Your task to perform on an android device: toggle sleep mode Image 0: 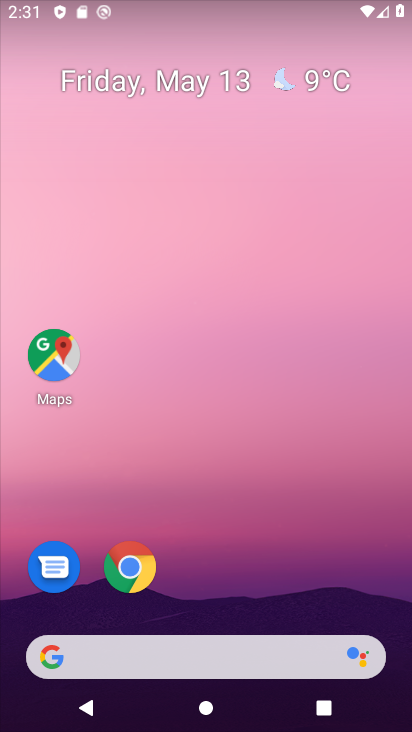
Step 0: drag from (260, 590) to (339, 8)
Your task to perform on an android device: toggle sleep mode Image 1: 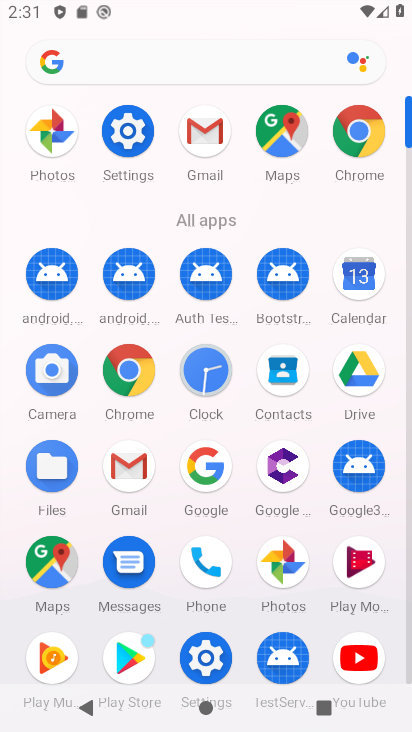
Step 1: click (127, 142)
Your task to perform on an android device: toggle sleep mode Image 2: 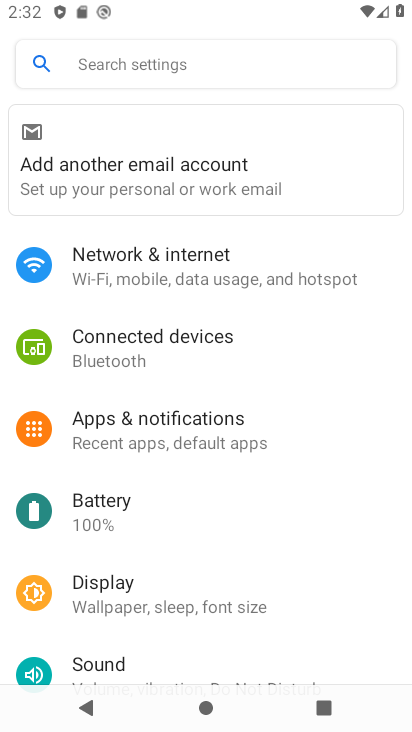
Step 2: click (112, 588)
Your task to perform on an android device: toggle sleep mode Image 3: 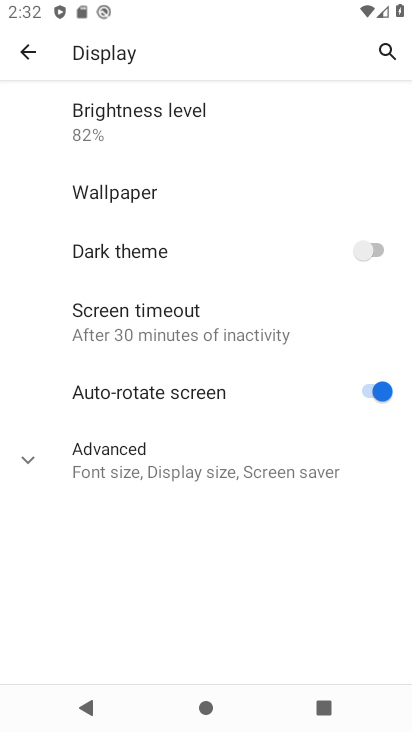
Step 3: click (23, 465)
Your task to perform on an android device: toggle sleep mode Image 4: 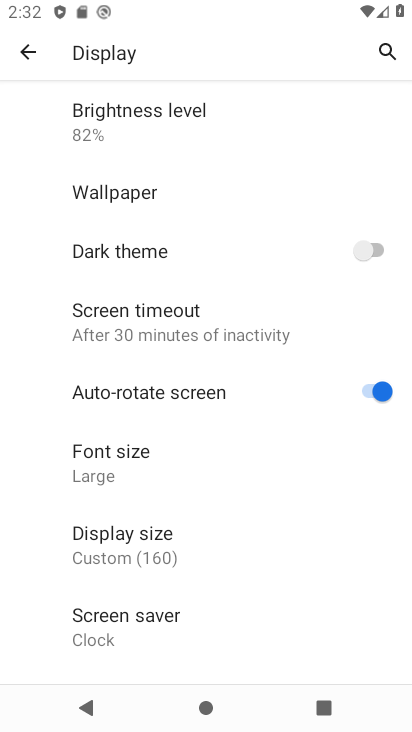
Step 4: task complete